Your task to perform on an android device: Open settings Image 0: 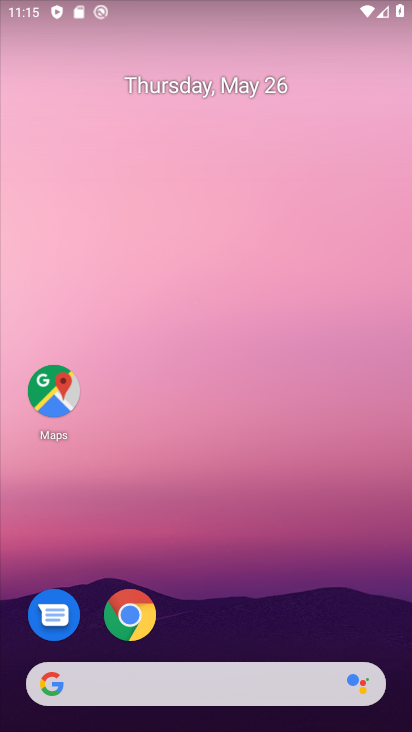
Step 0: drag from (404, 693) to (293, 1)
Your task to perform on an android device: Open settings Image 1: 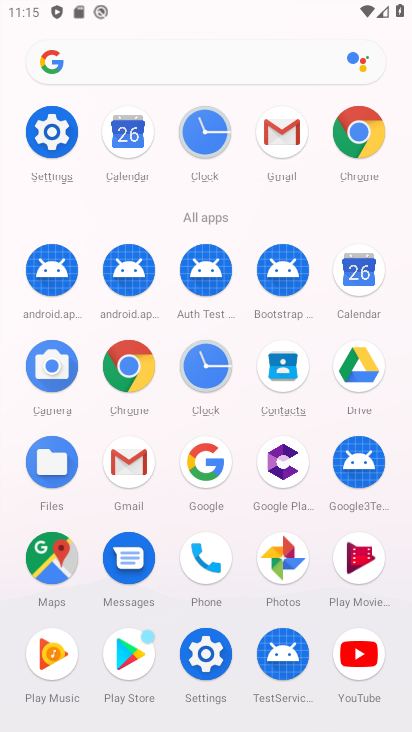
Step 1: click (44, 148)
Your task to perform on an android device: Open settings Image 2: 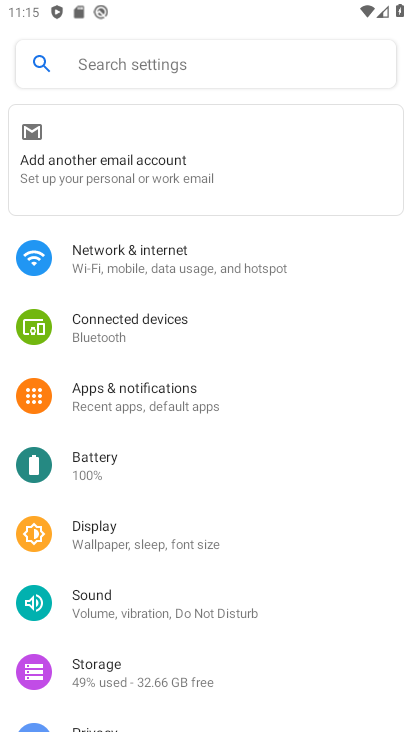
Step 2: task complete